Your task to perform on an android device: turn on notifications settings in the gmail app Image 0: 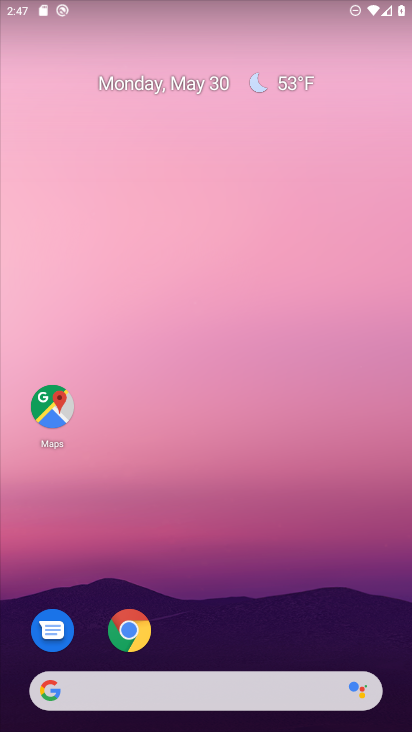
Step 0: drag from (190, 699) to (176, 145)
Your task to perform on an android device: turn on notifications settings in the gmail app Image 1: 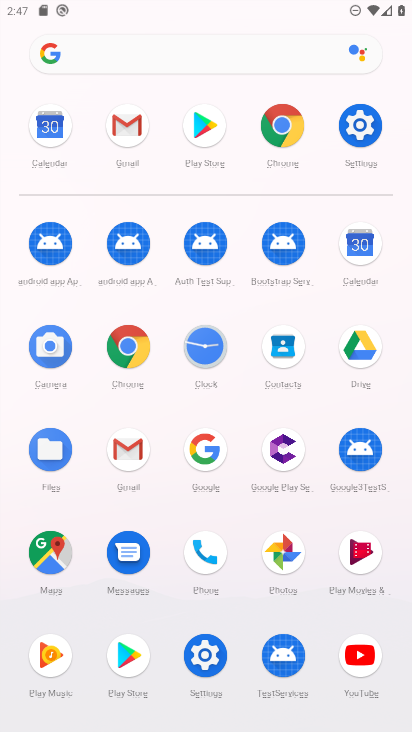
Step 1: click (128, 447)
Your task to perform on an android device: turn on notifications settings in the gmail app Image 2: 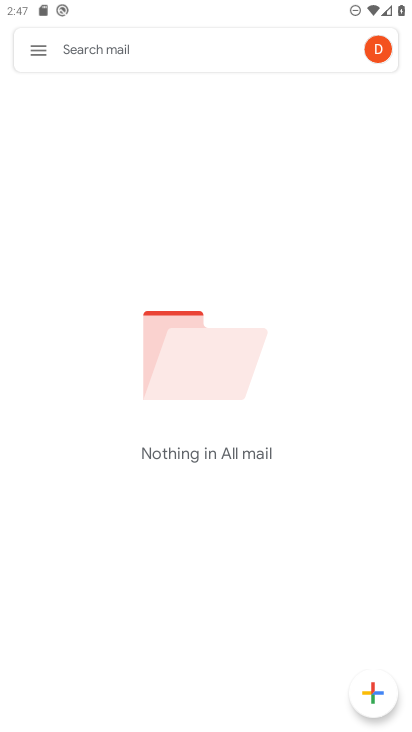
Step 2: click (36, 50)
Your task to perform on an android device: turn on notifications settings in the gmail app Image 3: 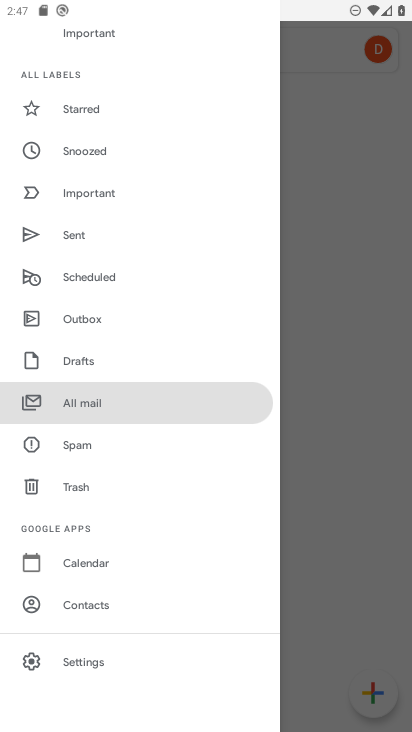
Step 3: click (96, 672)
Your task to perform on an android device: turn on notifications settings in the gmail app Image 4: 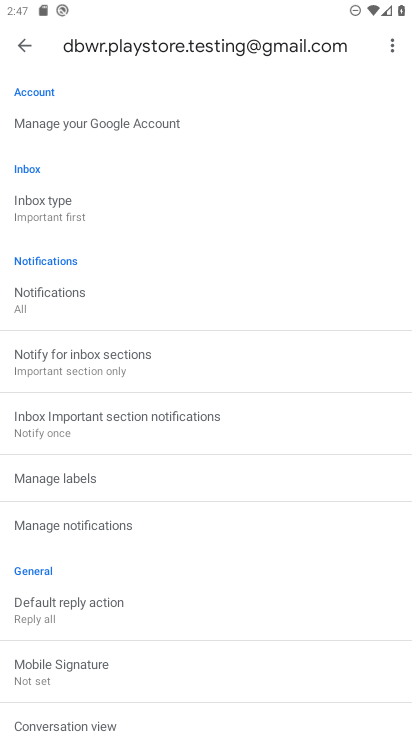
Step 4: click (130, 525)
Your task to perform on an android device: turn on notifications settings in the gmail app Image 5: 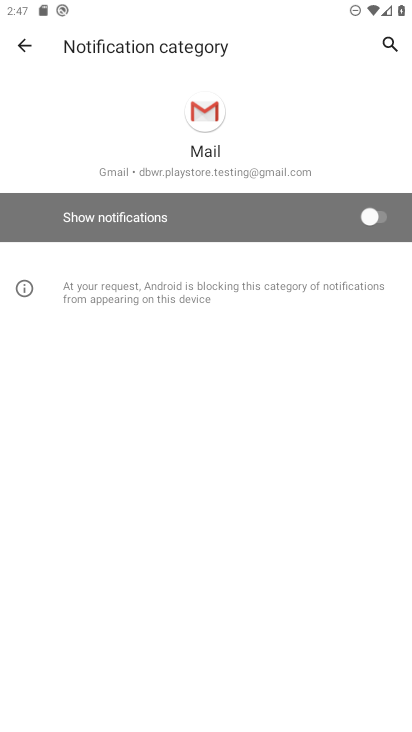
Step 5: click (369, 217)
Your task to perform on an android device: turn on notifications settings in the gmail app Image 6: 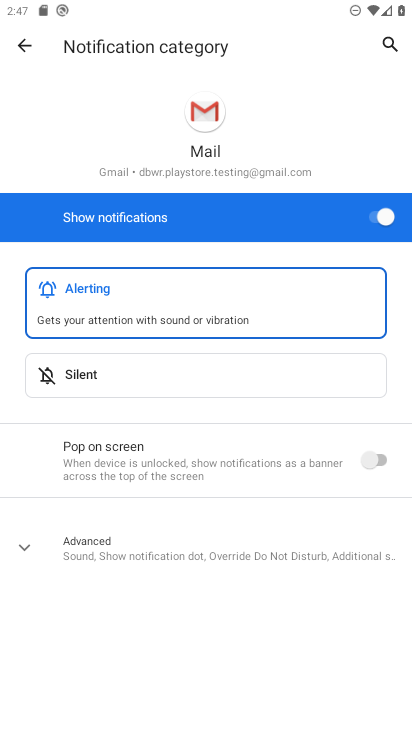
Step 6: task complete